Your task to perform on an android device: Open network settings Image 0: 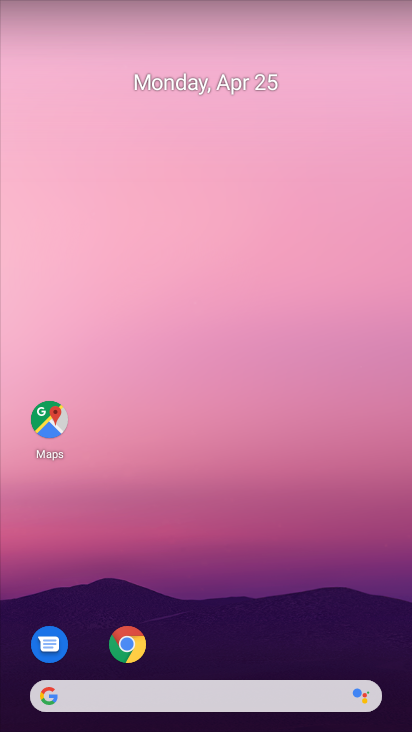
Step 0: drag from (230, 644) to (242, 15)
Your task to perform on an android device: Open network settings Image 1: 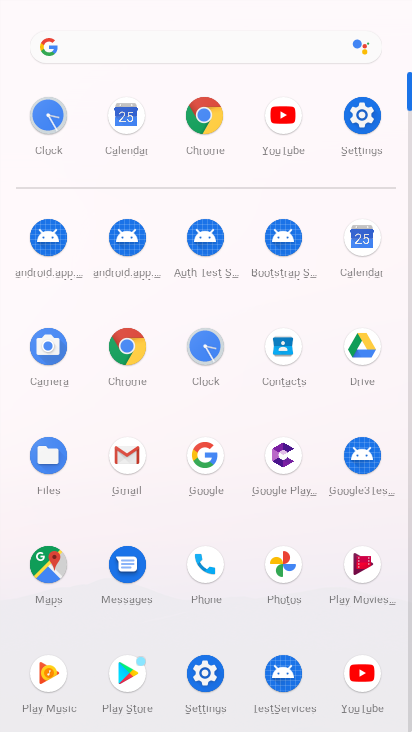
Step 1: click (361, 112)
Your task to perform on an android device: Open network settings Image 2: 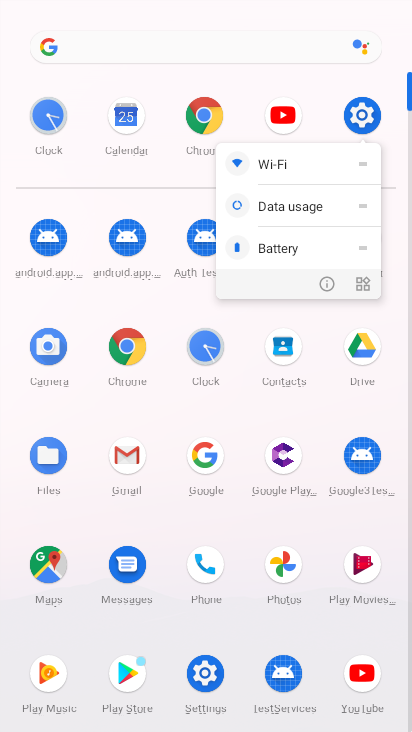
Step 2: click (361, 112)
Your task to perform on an android device: Open network settings Image 3: 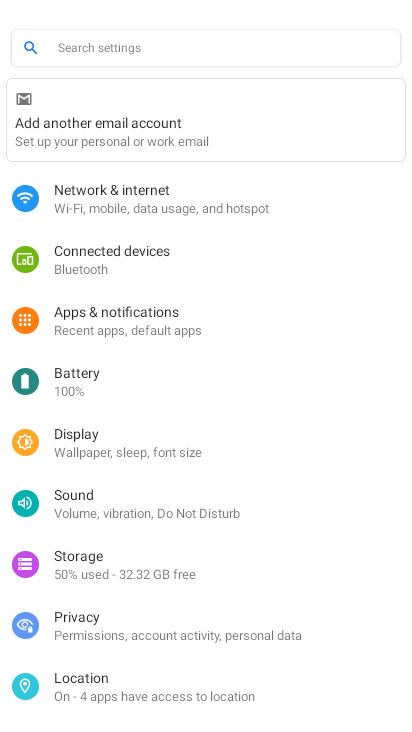
Step 3: click (187, 202)
Your task to perform on an android device: Open network settings Image 4: 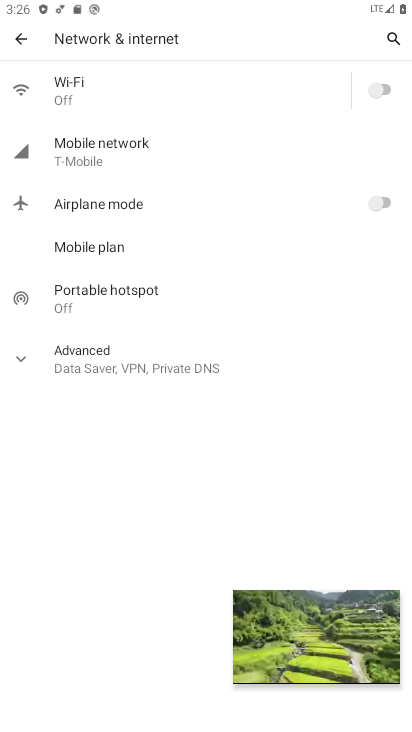
Step 4: task complete